Your task to perform on an android device: change timer sound Image 0: 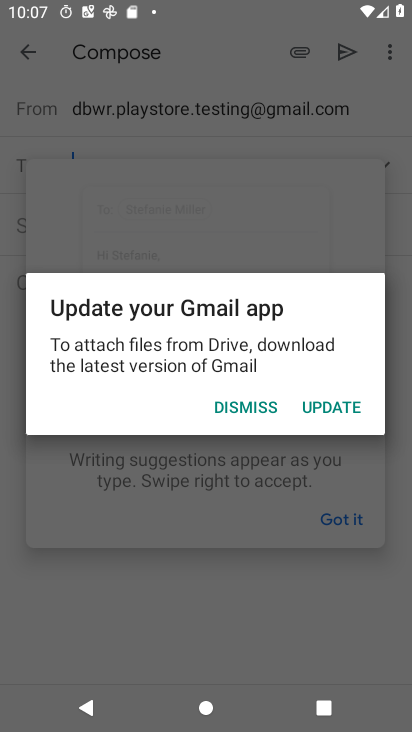
Step 0: press back button
Your task to perform on an android device: change timer sound Image 1: 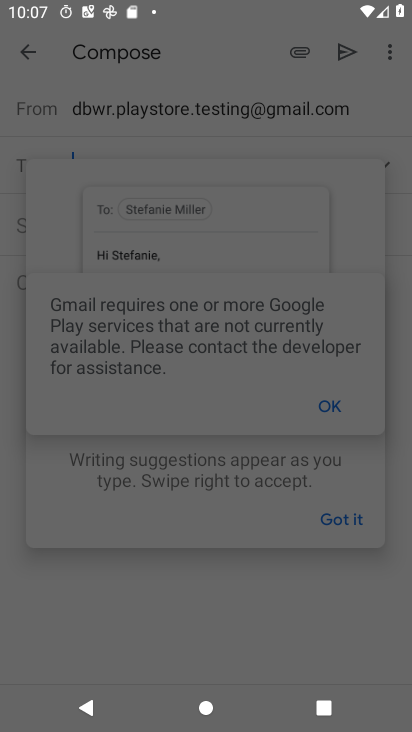
Step 1: press home button
Your task to perform on an android device: change timer sound Image 2: 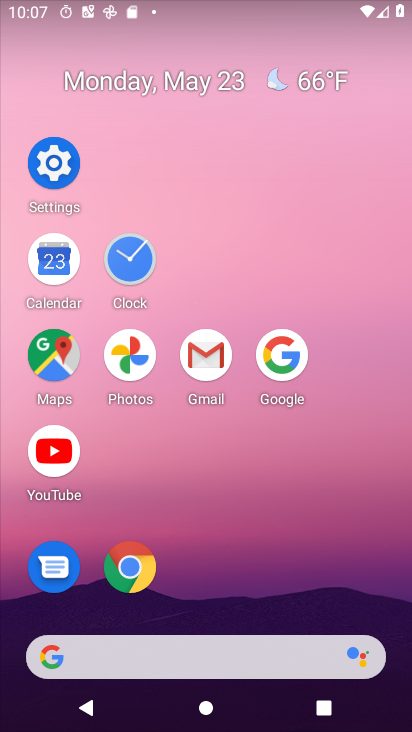
Step 2: click (148, 273)
Your task to perform on an android device: change timer sound Image 3: 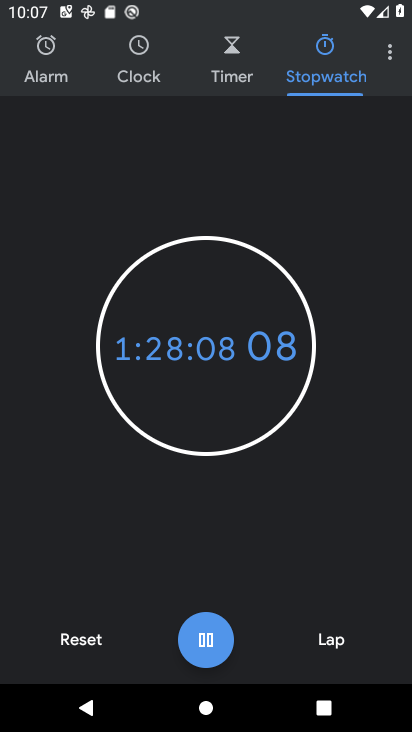
Step 3: click (394, 42)
Your task to perform on an android device: change timer sound Image 4: 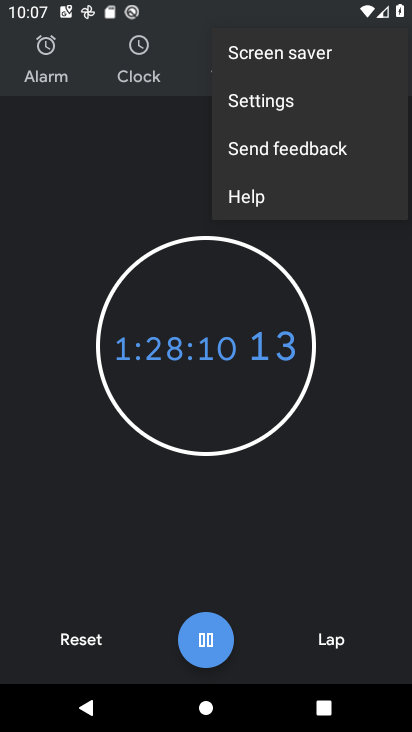
Step 4: click (285, 109)
Your task to perform on an android device: change timer sound Image 5: 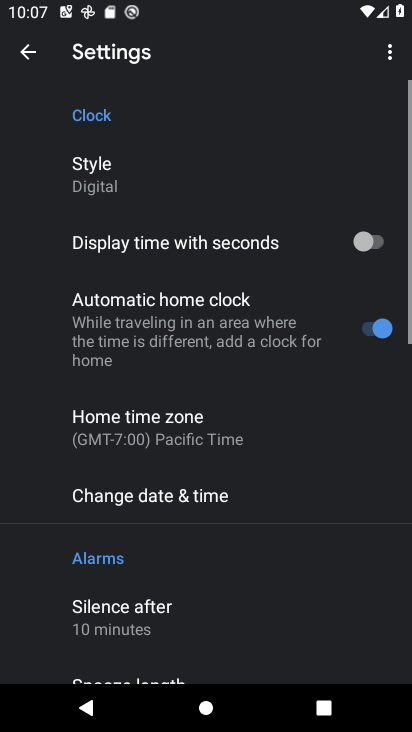
Step 5: drag from (201, 515) to (234, 187)
Your task to perform on an android device: change timer sound Image 6: 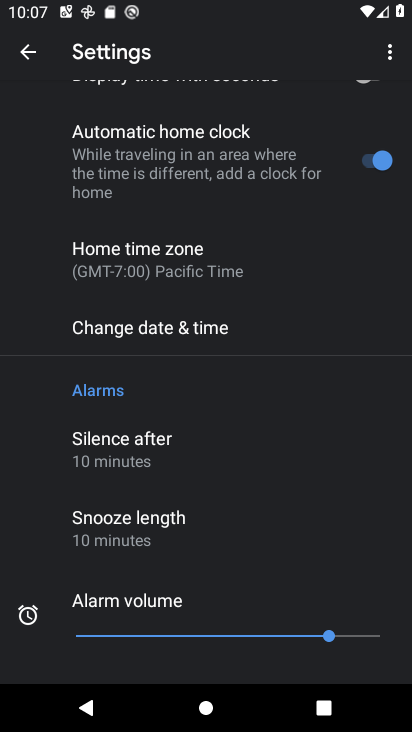
Step 6: drag from (197, 545) to (257, 138)
Your task to perform on an android device: change timer sound Image 7: 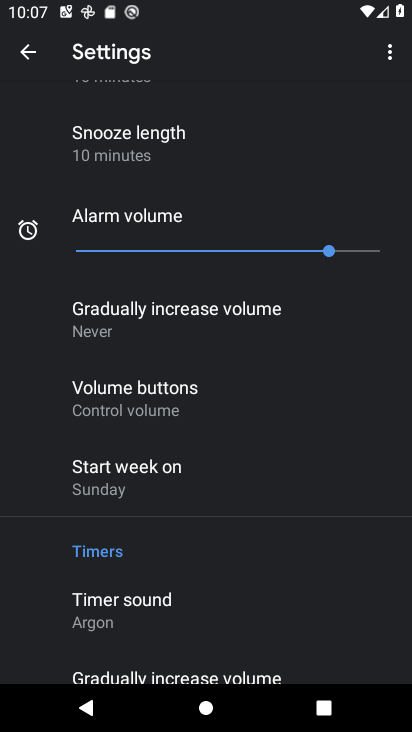
Step 7: drag from (235, 421) to (263, 90)
Your task to perform on an android device: change timer sound Image 8: 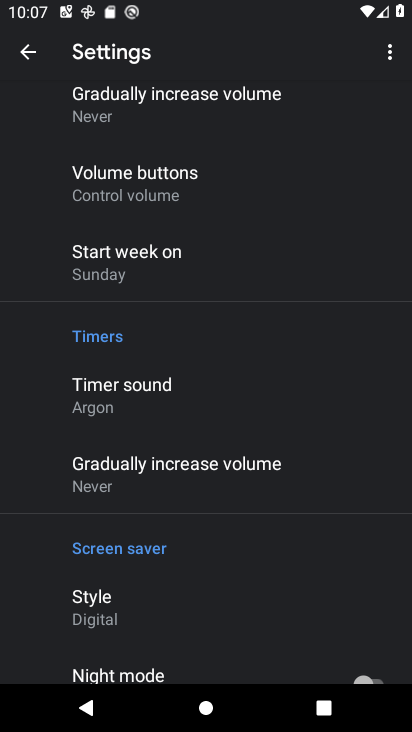
Step 8: click (167, 385)
Your task to perform on an android device: change timer sound Image 9: 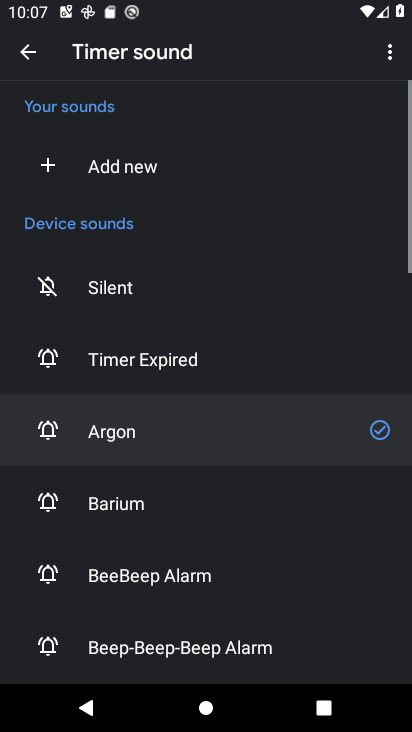
Step 9: click (188, 369)
Your task to perform on an android device: change timer sound Image 10: 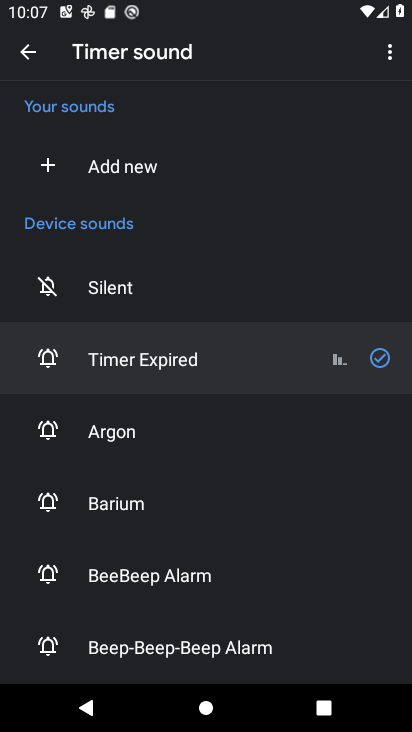
Step 10: task complete